Your task to perform on an android device: open a bookmark in the chrome app Image 0: 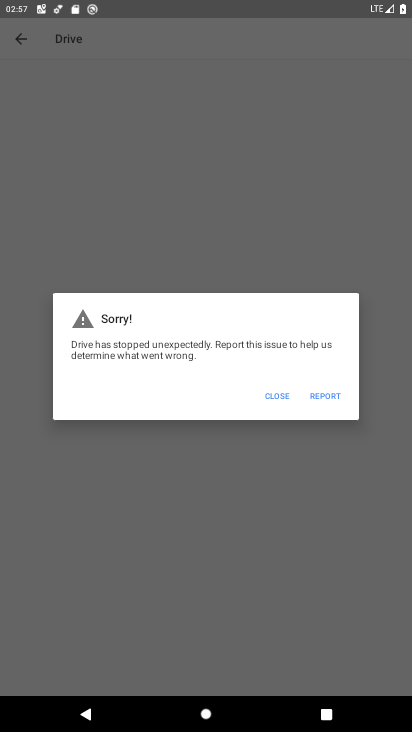
Step 0: press home button
Your task to perform on an android device: open a bookmark in the chrome app Image 1: 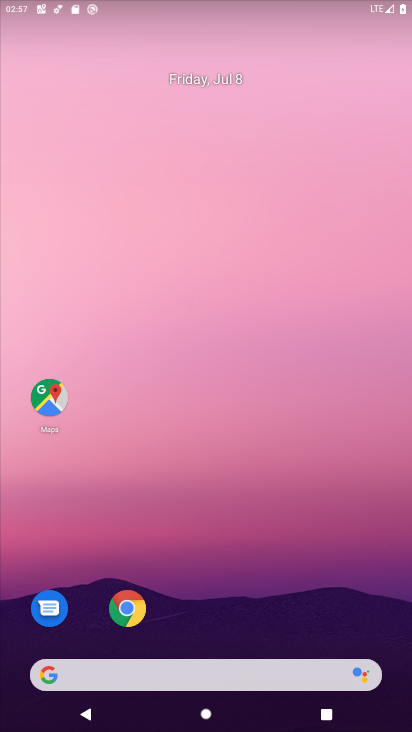
Step 1: drag from (226, 543) to (221, 109)
Your task to perform on an android device: open a bookmark in the chrome app Image 2: 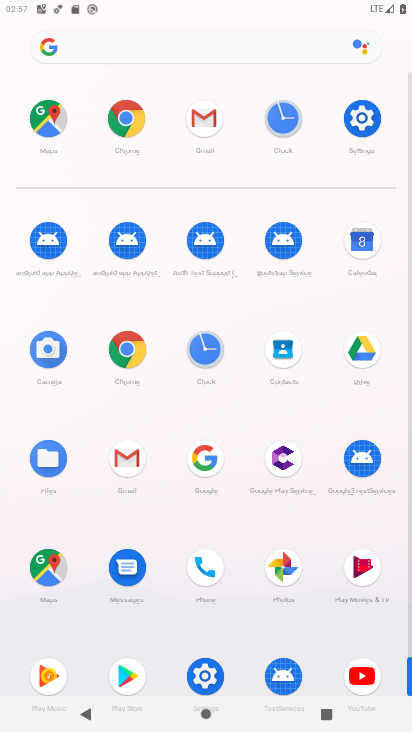
Step 2: click (123, 349)
Your task to perform on an android device: open a bookmark in the chrome app Image 3: 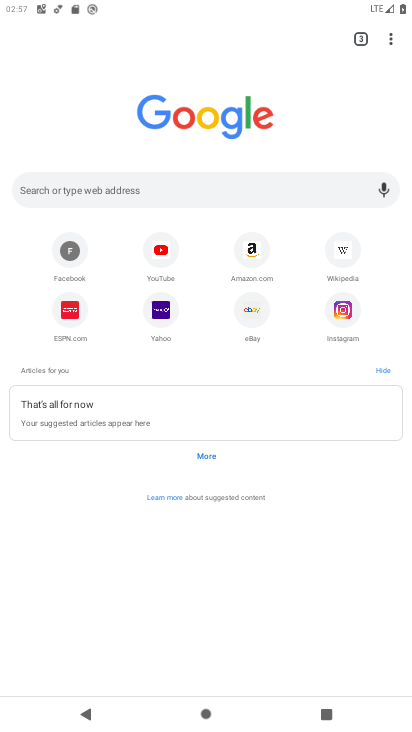
Step 3: click (384, 42)
Your task to perform on an android device: open a bookmark in the chrome app Image 4: 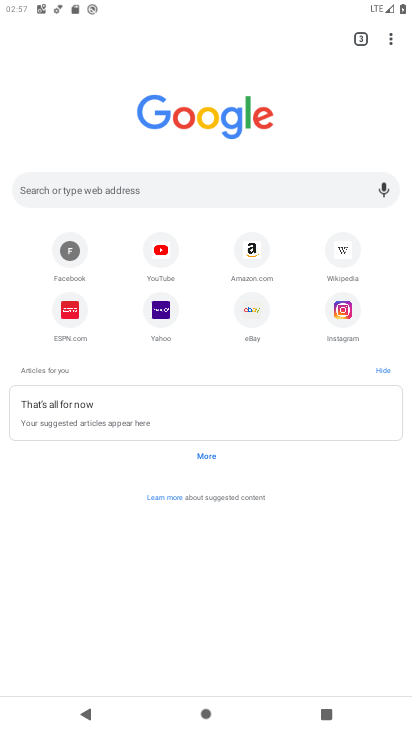
Step 4: click (398, 36)
Your task to perform on an android device: open a bookmark in the chrome app Image 5: 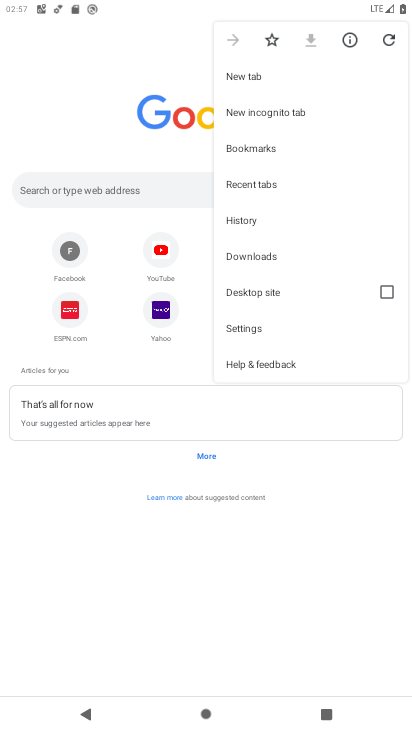
Step 5: click (279, 147)
Your task to perform on an android device: open a bookmark in the chrome app Image 6: 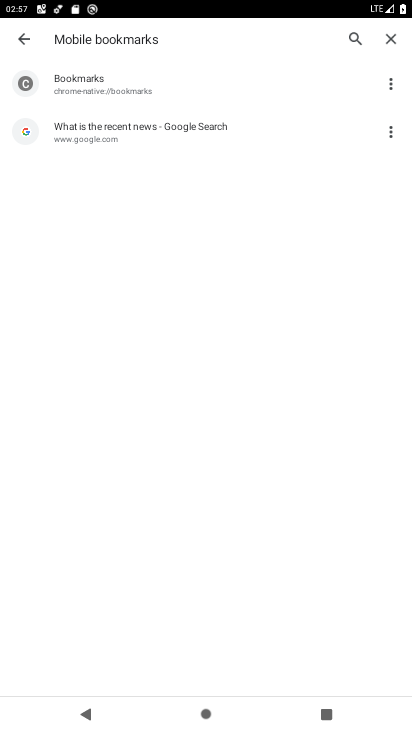
Step 6: task complete